Your task to perform on an android device: Open location settings Image 0: 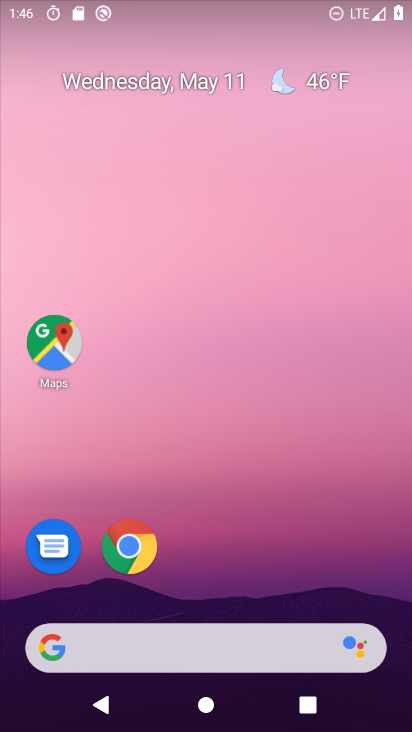
Step 0: drag from (258, 669) to (226, 221)
Your task to perform on an android device: Open location settings Image 1: 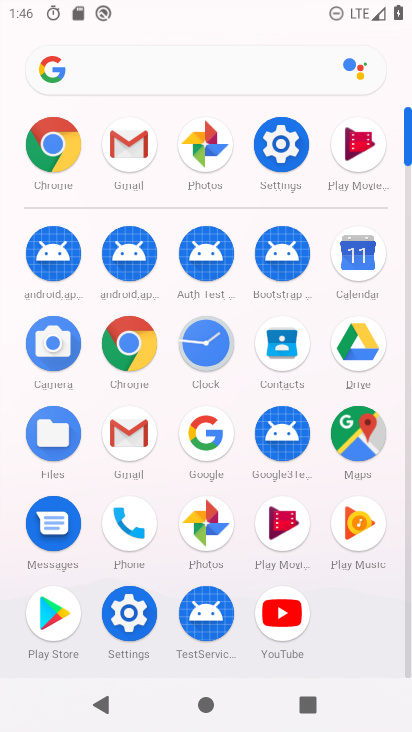
Step 1: click (277, 154)
Your task to perform on an android device: Open location settings Image 2: 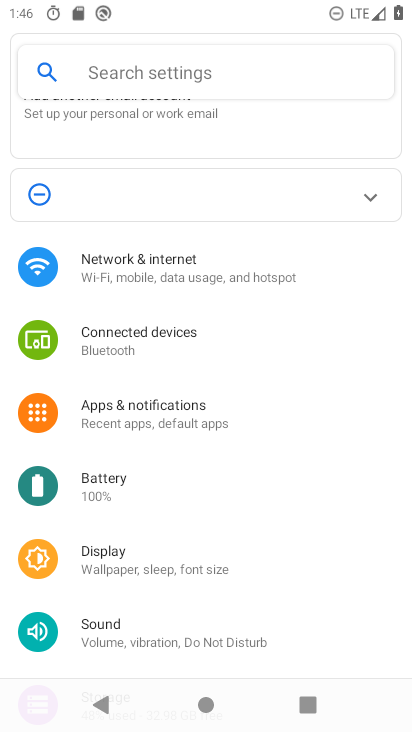
Step 2: click (233, 76)
Your task to perform on an android device: Open location settings Image 3: 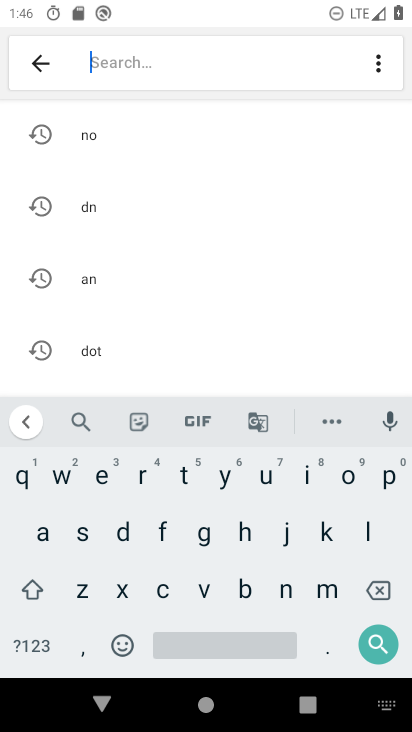
Step 3: click (363, 530)
Your task to perform on an android device: Open location settings Image 4: 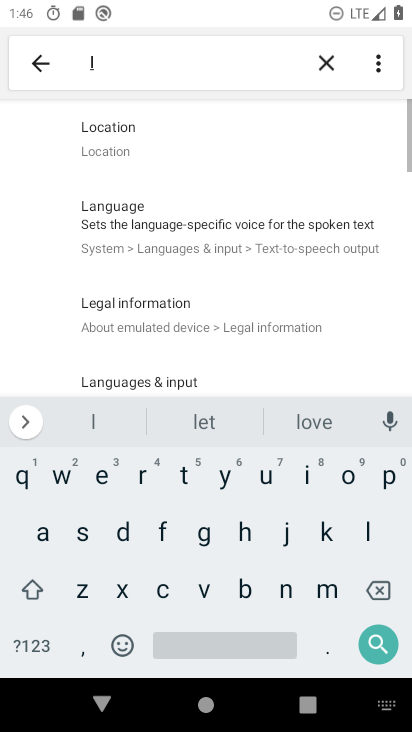
Step 4: click (345, 469)
Your task to perform on an android device: Open location settings Image 5: 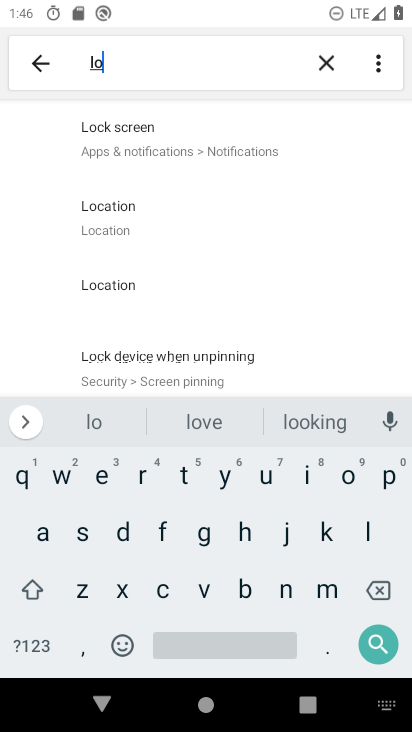
Step 5: click (138, 216)
Your task to perform on an android device: Open location settings Image 6: 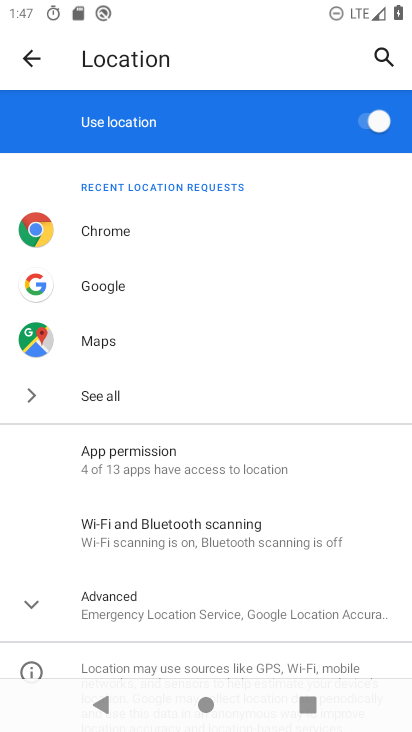
Step 6: task complete